Your task to perform on an android device: Open Maps and search for coffee Image 0: 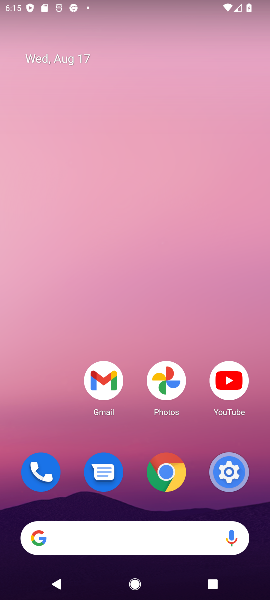
Step 0: drag from (137, 417) to (157, 26)
Your task to perform on an android device: Open Maps and search for coffee Image 1: 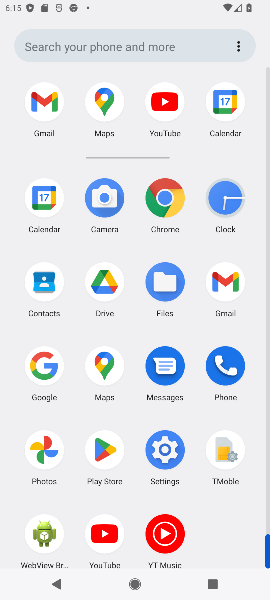
Step 1: click (105, 116)
Your task to perform on an android device: Open Maps and search for coffee Image 2: 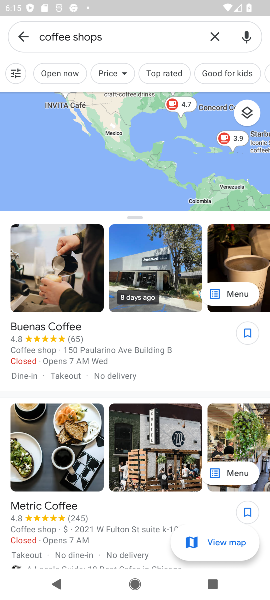
Step 2: click (211, 27)
Your task to perform on an android device: Open Maps and search for coffee Image 3: 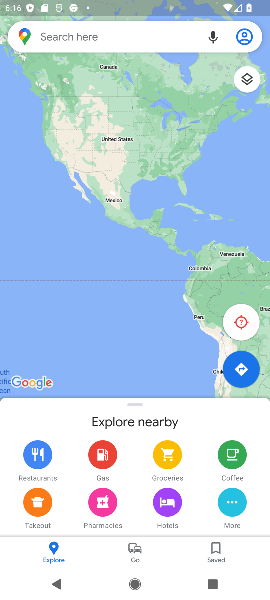
Step 3: click (80, 30)
Your task to perform on an android device: Open Maps and search for coffee Image 4: 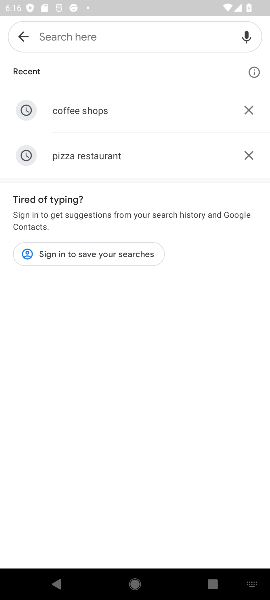
Step 4: type "coffee"
Your task to perform on an android device: Open Maps and search for coffee Image 5: 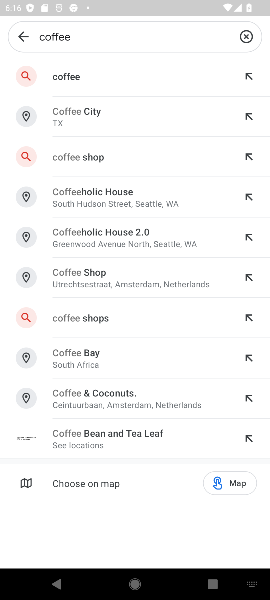
Step 5: click (75, 71)
Your task to perform on an android device: Open Maps and search for coffee Image 6: 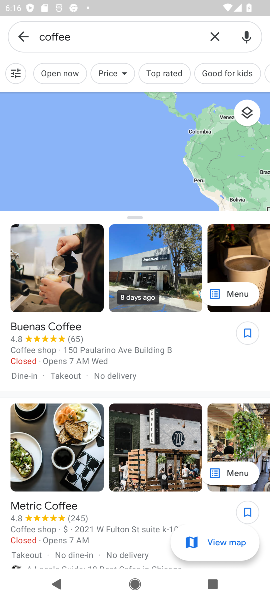
Step 6: task complete